Your task to perform on an android device: View the shopping cart on costco.com. Add razer nari to the cart on costco.com, then select checkout. Image 0: 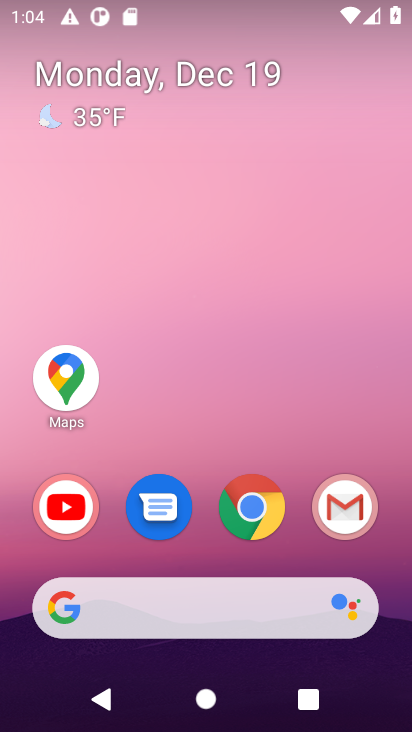
Step 0: click (253, 509)
Your task to perform on an android device: View the shopping cart on costco.com. Add razer nari to the cart on costco.com, then select checkout. Image 1: 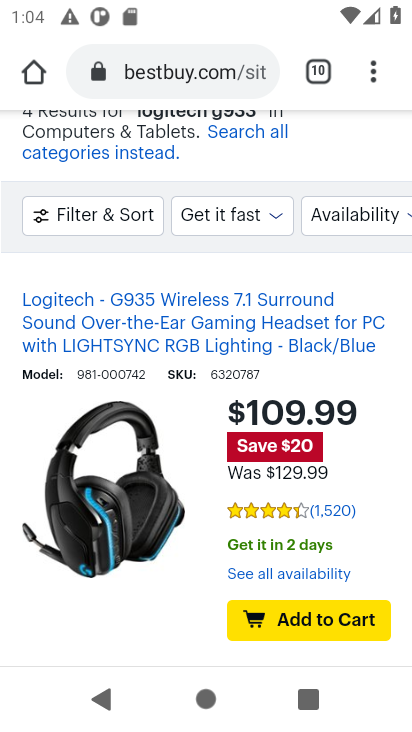
Step 1: click (161, 78)
Your task to perform on an android device: View the shopping cart on costco.com. Add razer nari to the cart on costco.com, then select checkout. Image 2: 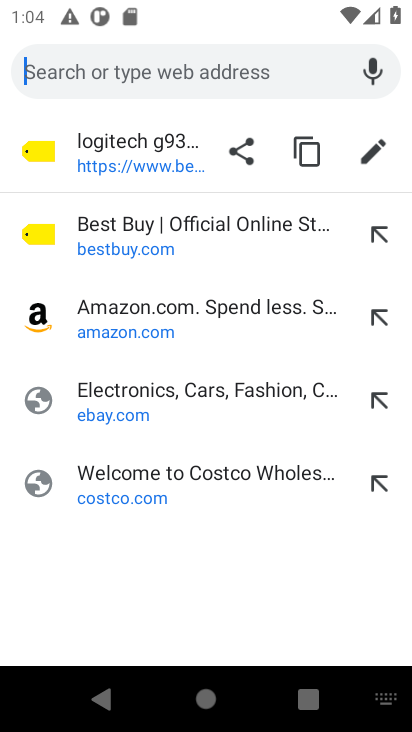
Step 2: click (114, 467)
Your task to perform on an android device: View the shopping cart on costco.com. Add razer nari to the cart on costco.com, then select checkout. Image 3: 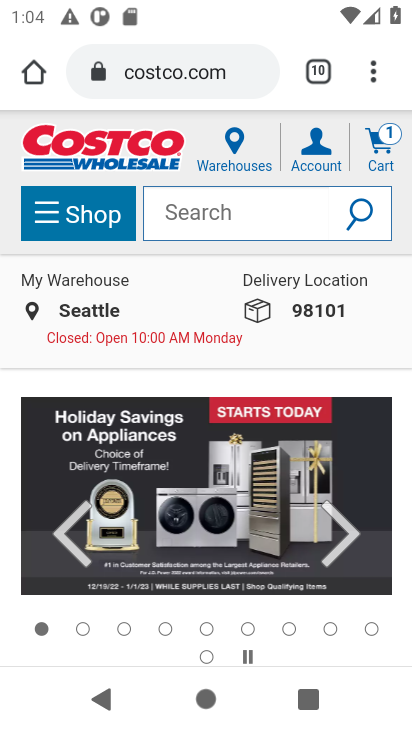
Step 3: click (385, 150)
Your task to perform on an android device: View the shopping cart on costco.com. Add razer nari to the cart on costco.com, then select checkout. Image 4: 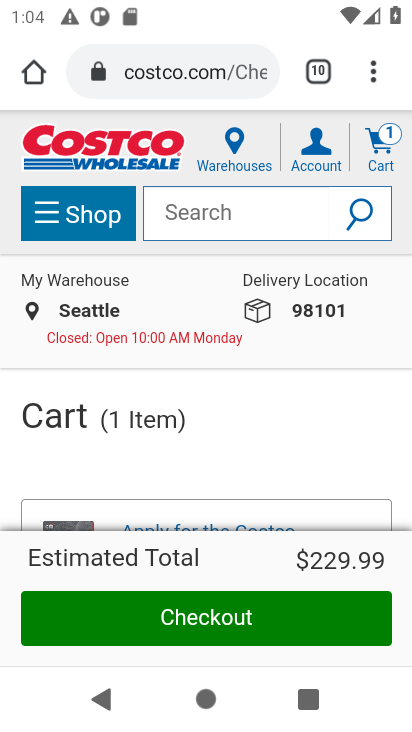
Step 4: drag from (209, 456) to (216, 233)
Your task to perform on an android device: View the shopping cart on costco.com. Add razer nari to the cart on costco.com, then select checkout. Image 5: 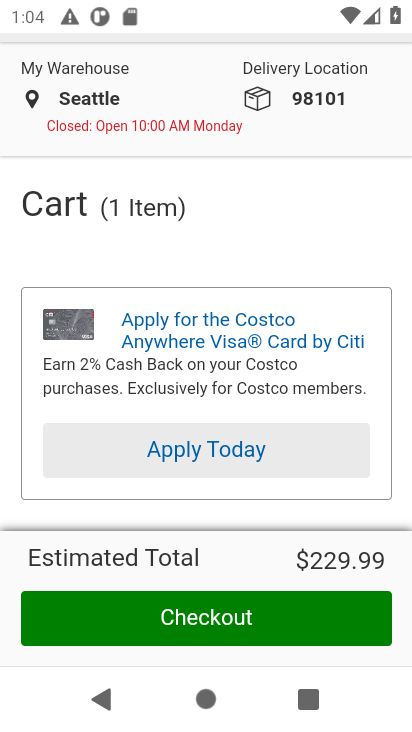
Step 5: drag from (256, 184) to (216, 508)
Your task to perform on an android device: View the shopping cart on costco.com. Add razer nari to the cart on costco.com, then select checkout. Image 6: 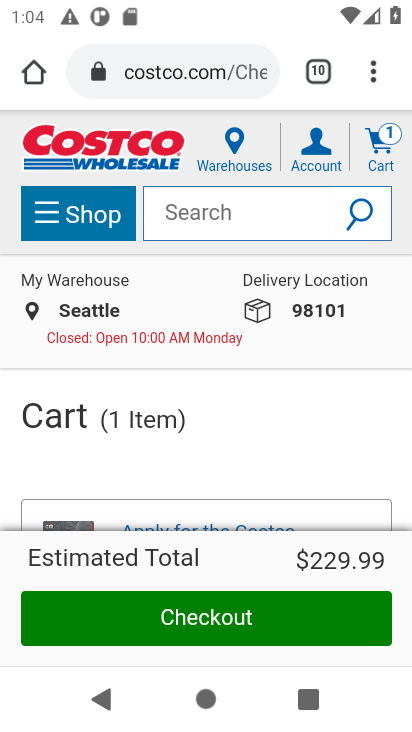
Step 6: click (175, 229)
Your task to perform on an android device: View the shopping cart on costco.com. Add razer nari to the cart on costco.com, then select checkout. Image 7: 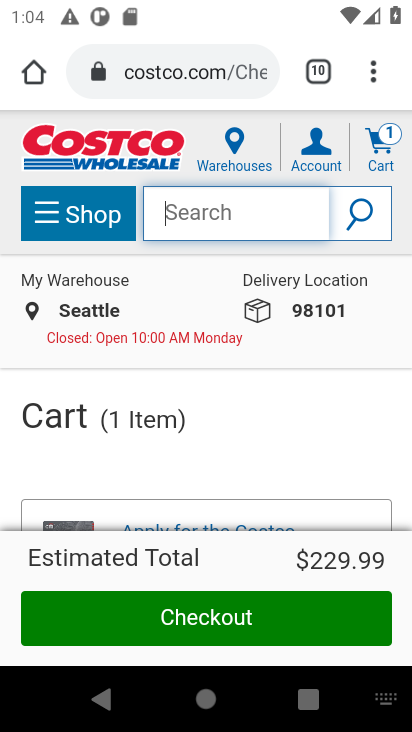
Step 7: type "razer nari "
Your task to perform on an android device: View the shopping cart on costco.com. Add razer nari to the cart on costco.com, then select checkout. Image 8: 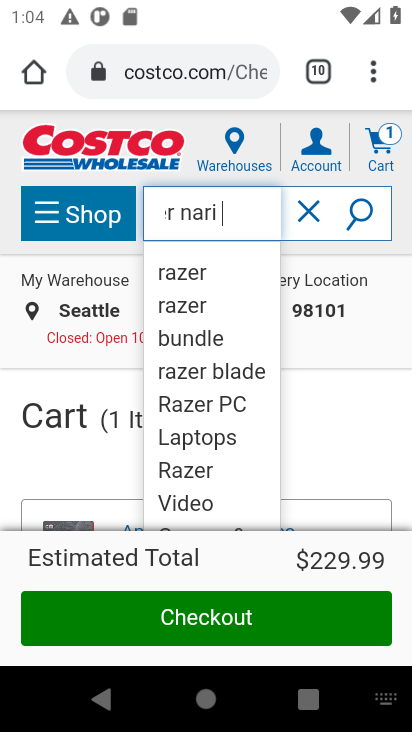
Step 8: click (367, 216)
Your task to perform on an android device: View the shopping cart on costco.com. Add razer nari to the cart on costco.com, then select checkout. Image 9: 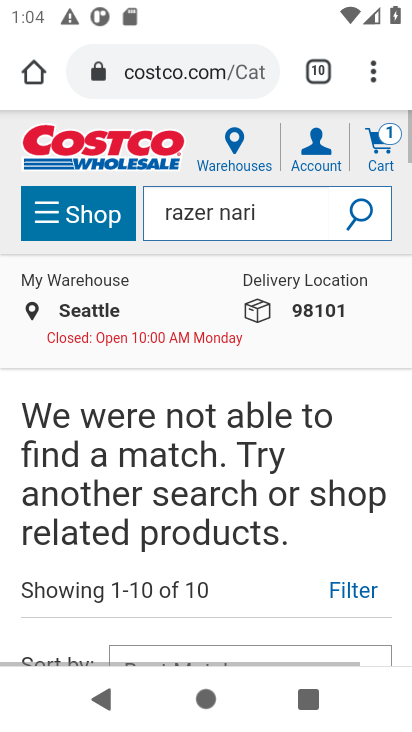
Step 9: task complete